Your task to perform on an android device: Is it going to rain tomorrow? Image 0: 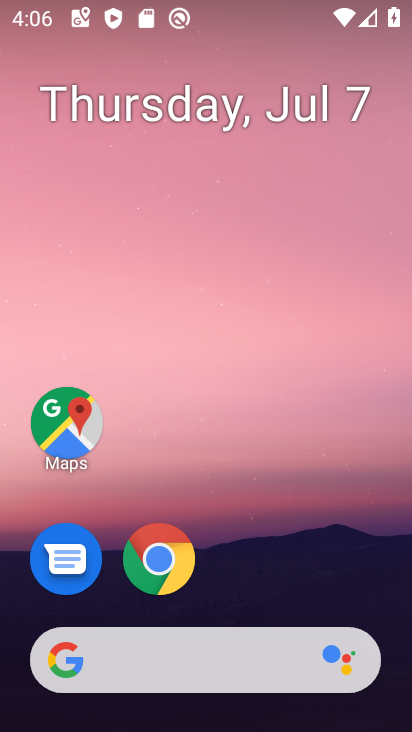
Step 0: drag from (246, 624) to (315, 45)
Your task to perform on an android device: Is it going to rain tomorrow? Image 1: 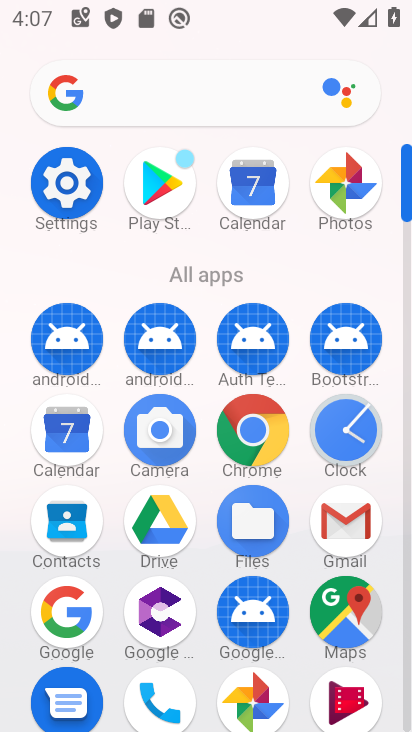
Step 1: click (168, 107)
Your task to perform on an android device: Is it going to rain tomorrow? Image 2: 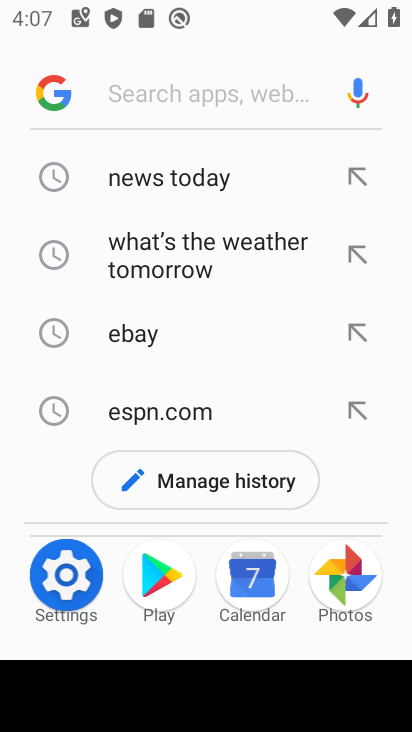
Step 2: type "Is it going to rain tomorrow?"
Your task to perform on an android device: Is it going to rain tomorrow? Image 3: 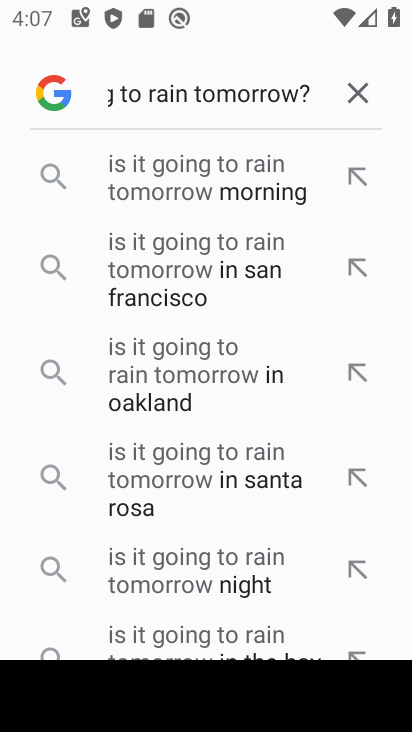
Step 3: click (194, 179)
Your task to perform on an android device: Is it going to rain tomorrow? Image 4: 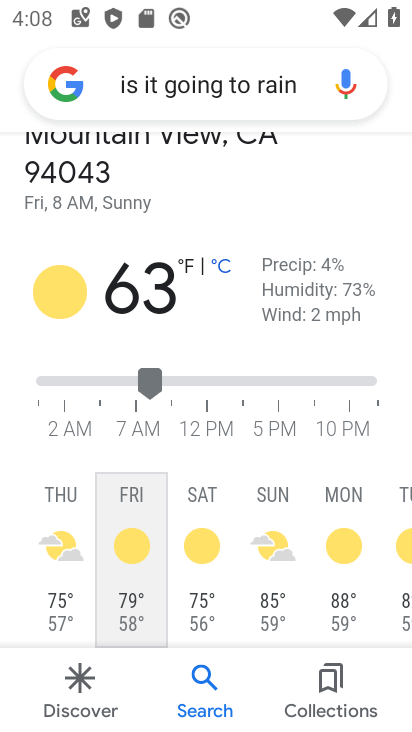
Step 4: task complete